Your task to perform on an android device: set default search engine in the chrome app Image 0: 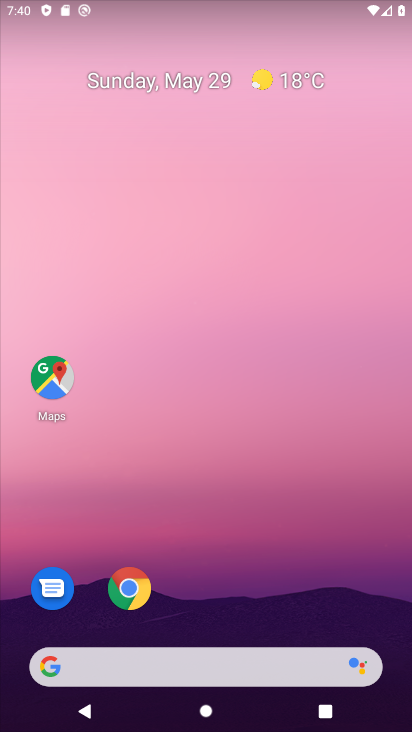
Step 0: drag from (227, 598) to (256, 217)
Your task to perform on an android device: set default search engine in the chrome app Image 1: 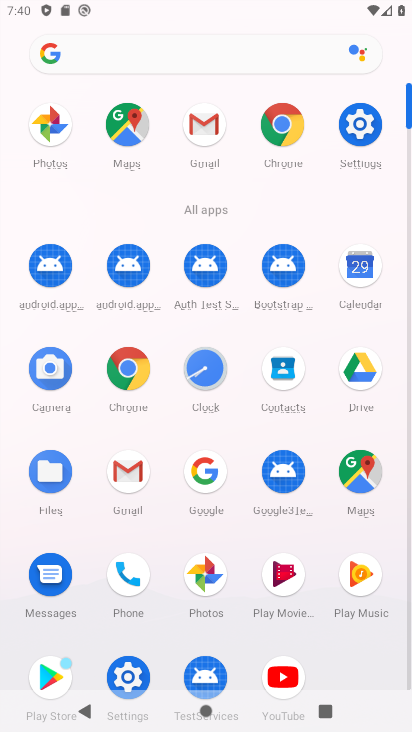
Step 1: click (131, 363)
Your task to perform on an android device: set default search engine in the chrome app Image 2: 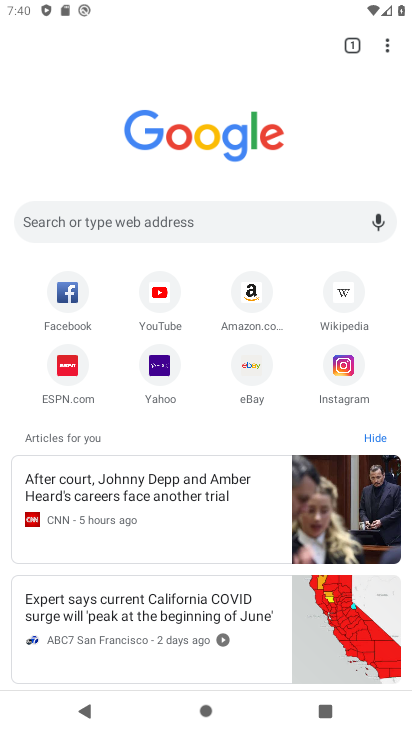
Step 2: click (383, 47)
Your task to perform on an android device: set default search engine in the chrome app Image 3: 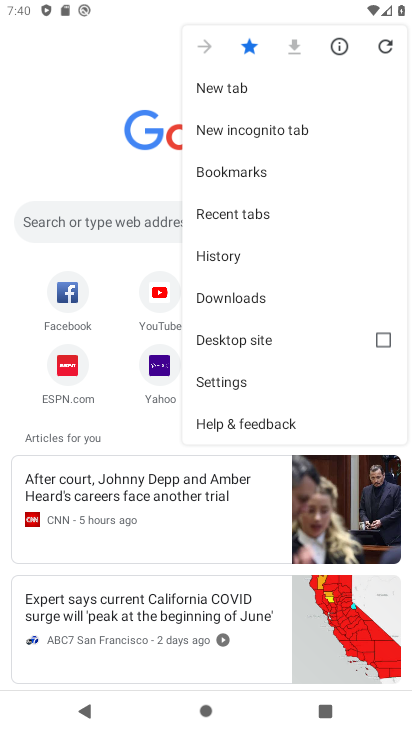
Step 3: click (221, 382)
Your task to perform on an android device: set default search engine in the chrome app Image 4: 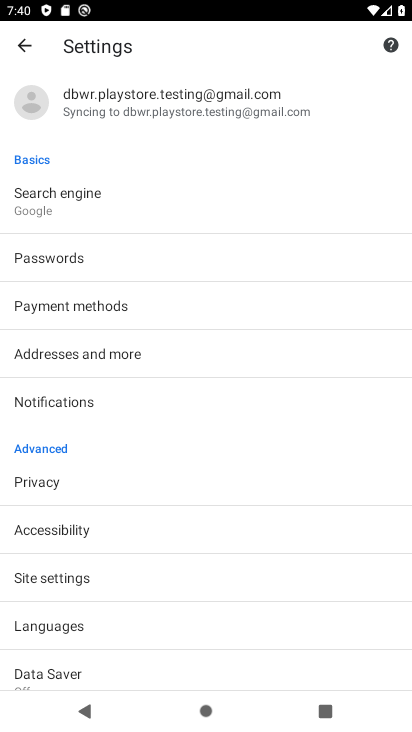
Step 4: click (52, 202)
Your task to perform on an android device: set default search engine in the chrome app Image 5: 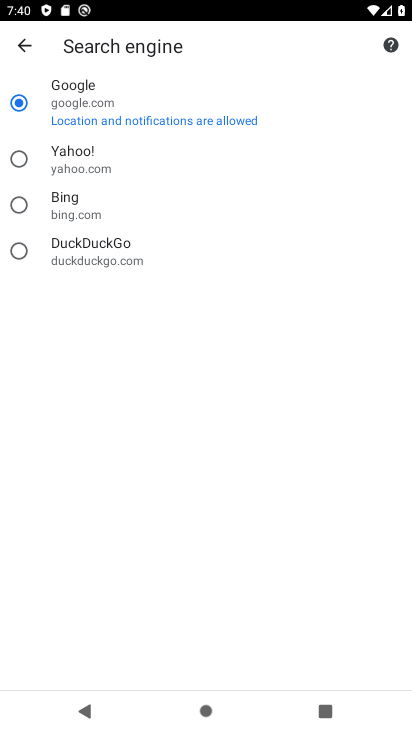
Step 5: click (45, 148)
Your task to perform on an android device: set default search engine in the chrome app Image 6: 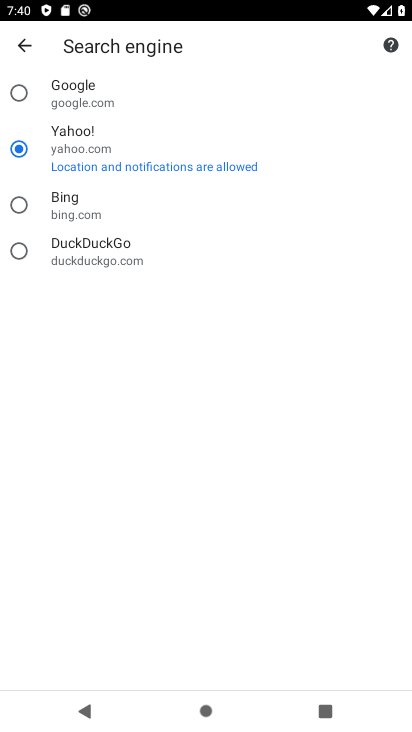
Step 6: task complete